Your task to perform on an android device: Go to accessibility settings Image 0: 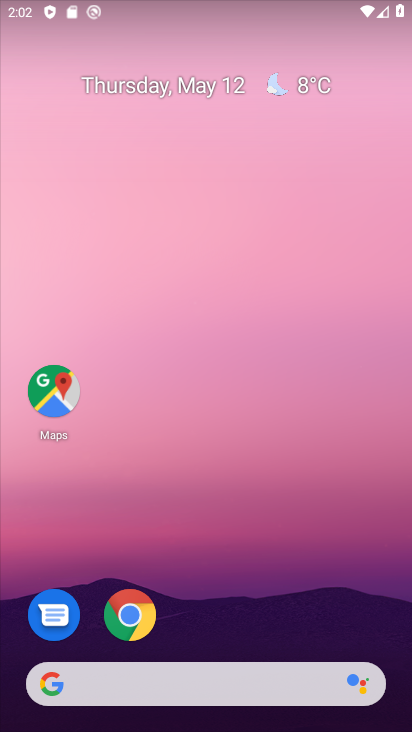
Step 0: drag from (216, 677) to (369, 136)
Your task to perform on an android device: Go to accessibility settings Image 1: 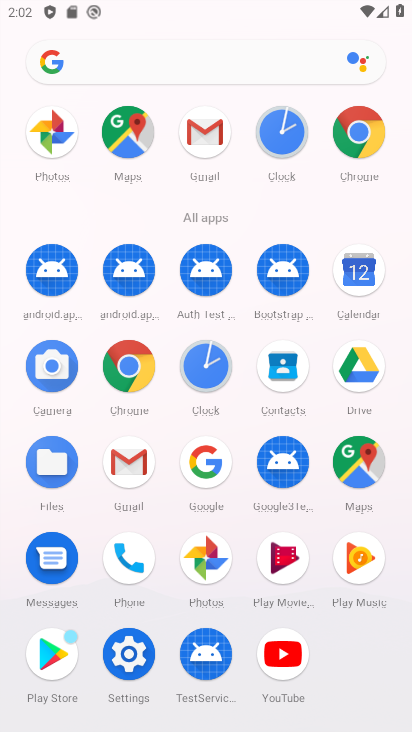
Step 1: click (133, 665)
Your task to perform on an android device: Go to accessibility settings Image 2: 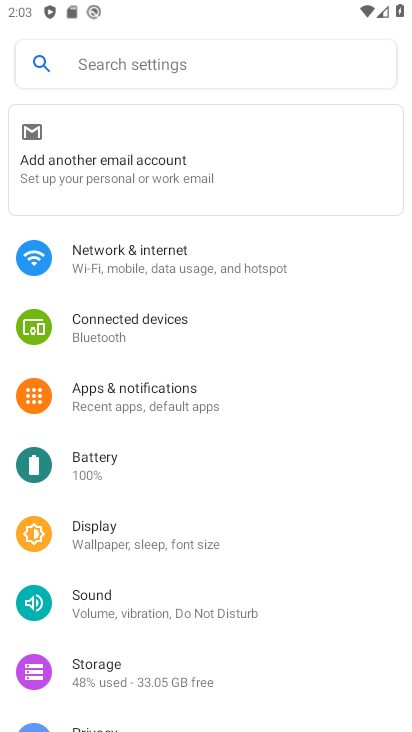
Step 2: drag from (267, 668) to (359, 181)
Your task to perform on an android device: Go to accessibility settings Image 3: 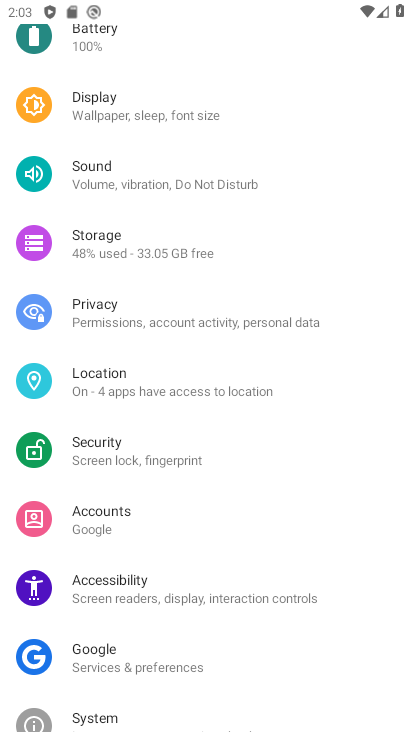
Step 3: drag from (216, 592) to (290, 138)
Your task to perform on an android device: Go to accessibility settings Image 4: 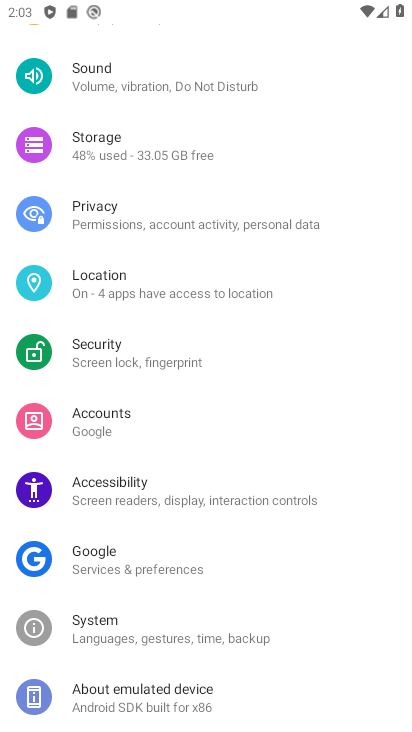
Step 4: click (191, 502)
Your task to perform on an android device: Go to accessibility settings Image 5: 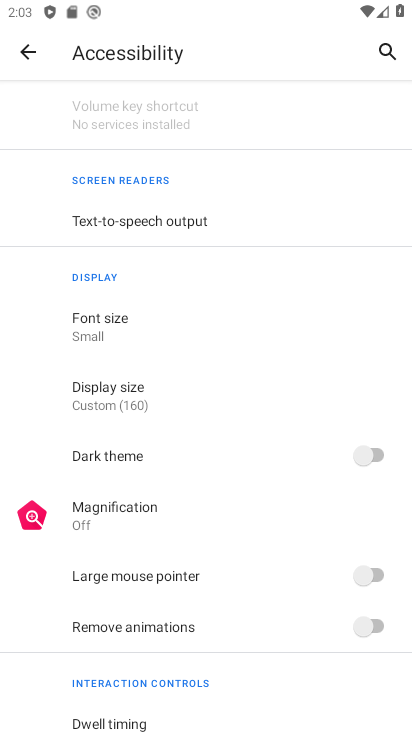
Step 5: task complete